Your task to perform on an android device: toggle show notifications on the lock screen Image 0: 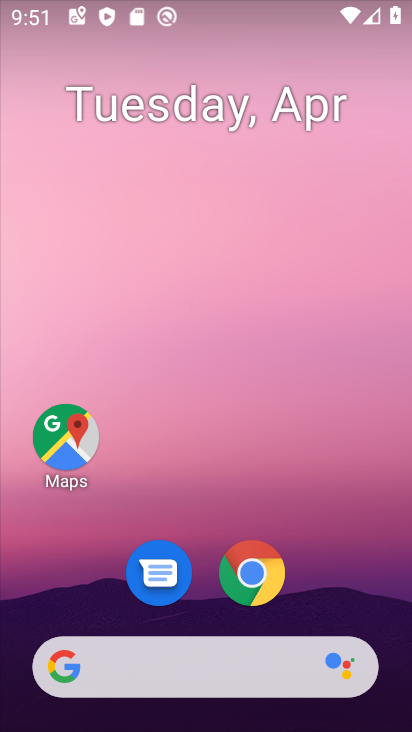
Step 0: drag from (224, 588) to (224, 184)
Your task to perform on an android device: toggle show notifications on the lock screen Image 1: 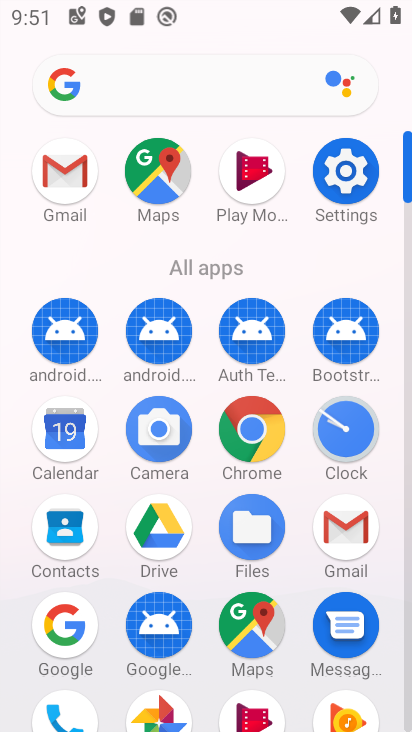
Step 1: click (335, 179)
Your task to perform on an android device: toggle show notifications on the lock screen Image 2: 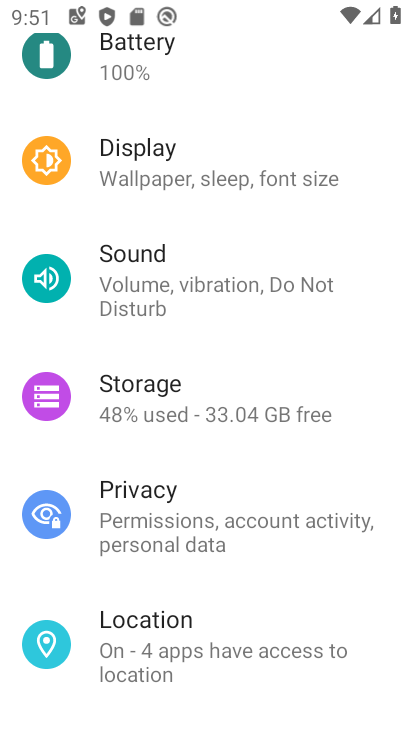
Step 2: drag from (254, 226) to (256, 554)
Your task to perform on an android device: toggle show notifications on the lock screen Image 3: 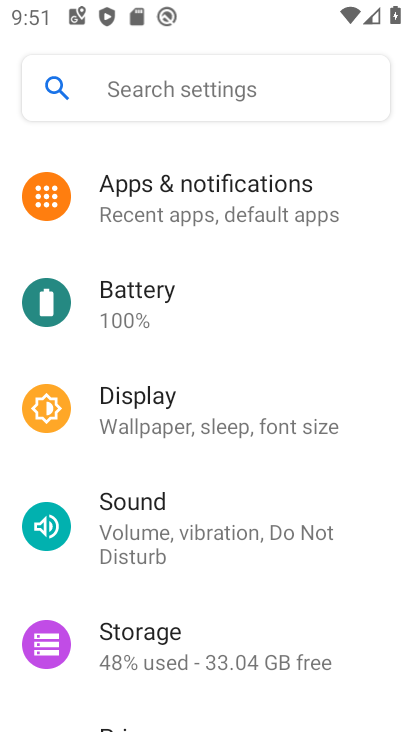
Step 3: click (204, 187)
Your task to perform on an android device: toggle show notifications on the lock screen Image 4: 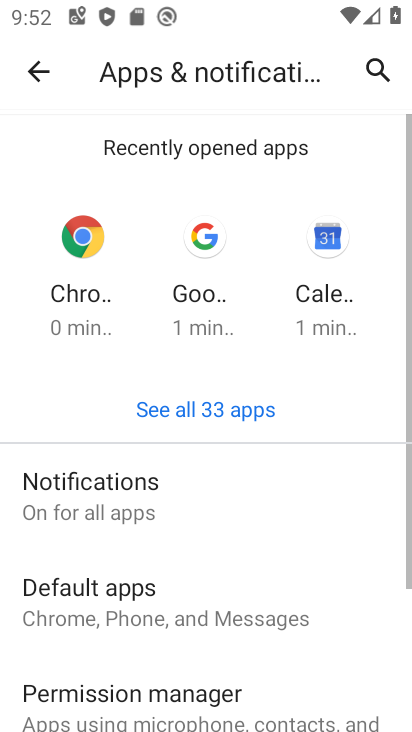
Step 4: drag from (246, 597) to (281, 349)
Your task to perform on an android device: toggle show notifications on the lock screen Image 5: 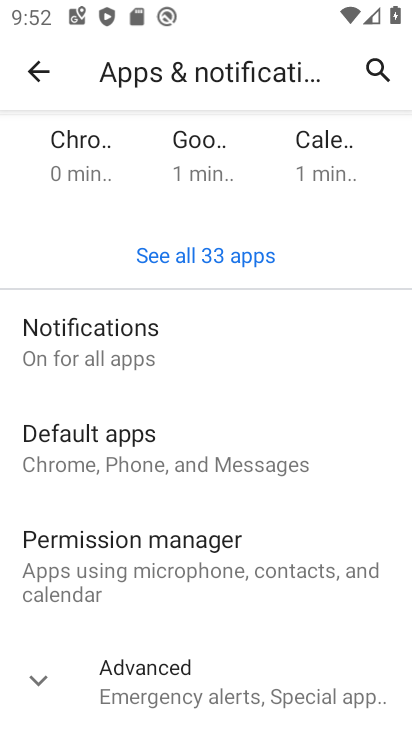
Step 5: click (125, 367)
Your task to perform on an android device: toggle show notifications on the lock screen Image 6: 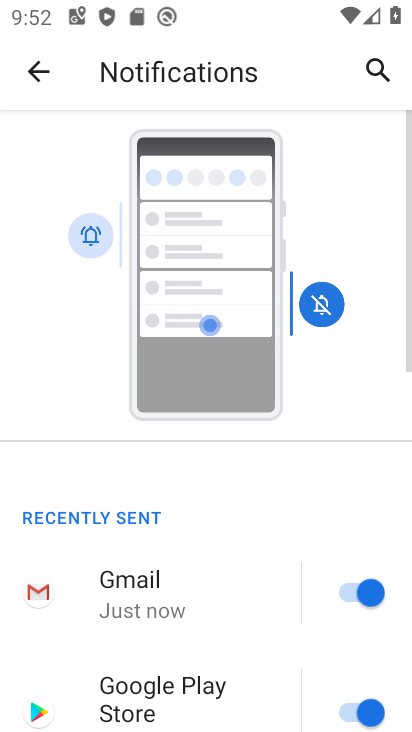
Step 6: drag from (242, 611) to (246, 193)
Your task to perform on an android device: toggle show notifications on the lock screen Image 7: 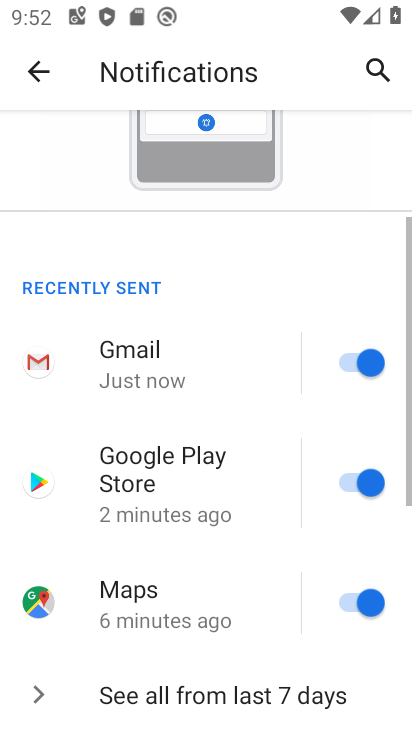
Step 7: drag from (231, 654) to (254, 337)
Your task to perform on an android device: toggle show notifications on the lock screen Image 8: 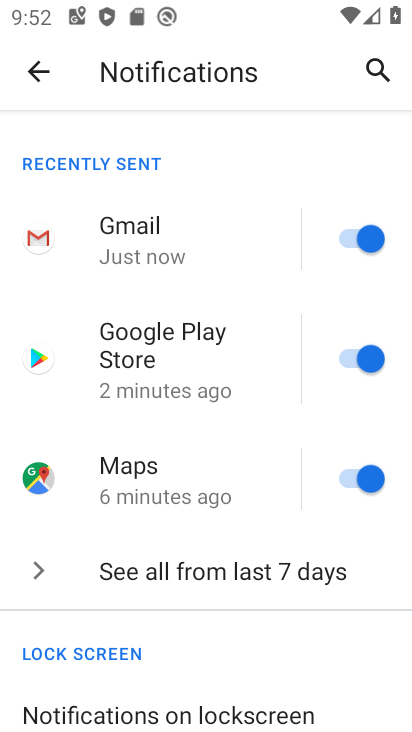
Step 8: click (264, 702)
Your task to perform on an android device: toggle show notifications on the lock screen Image 9: 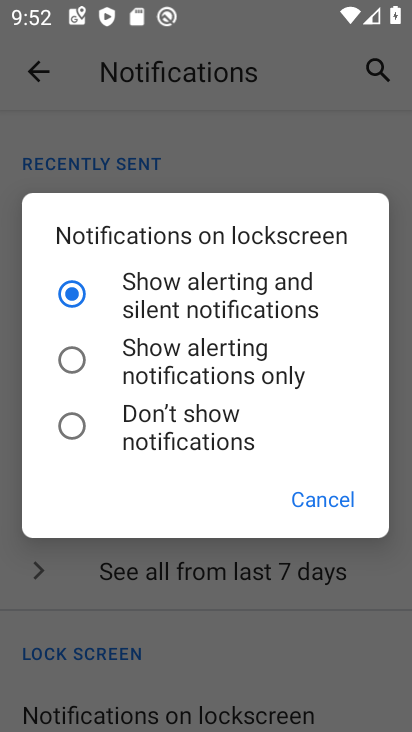
Step 9: click (171, 436)
Your task to perform on an android device: toggle show notifications on the lock screen Image 10: 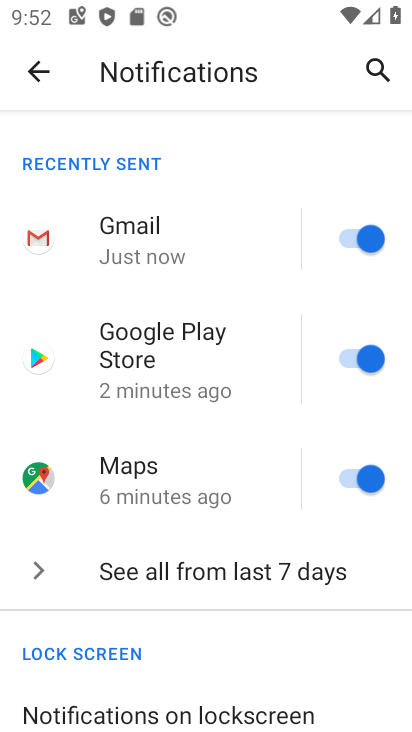
Step 10: task complete